Your task to perform on an android device: open app "Skype" Image 0: 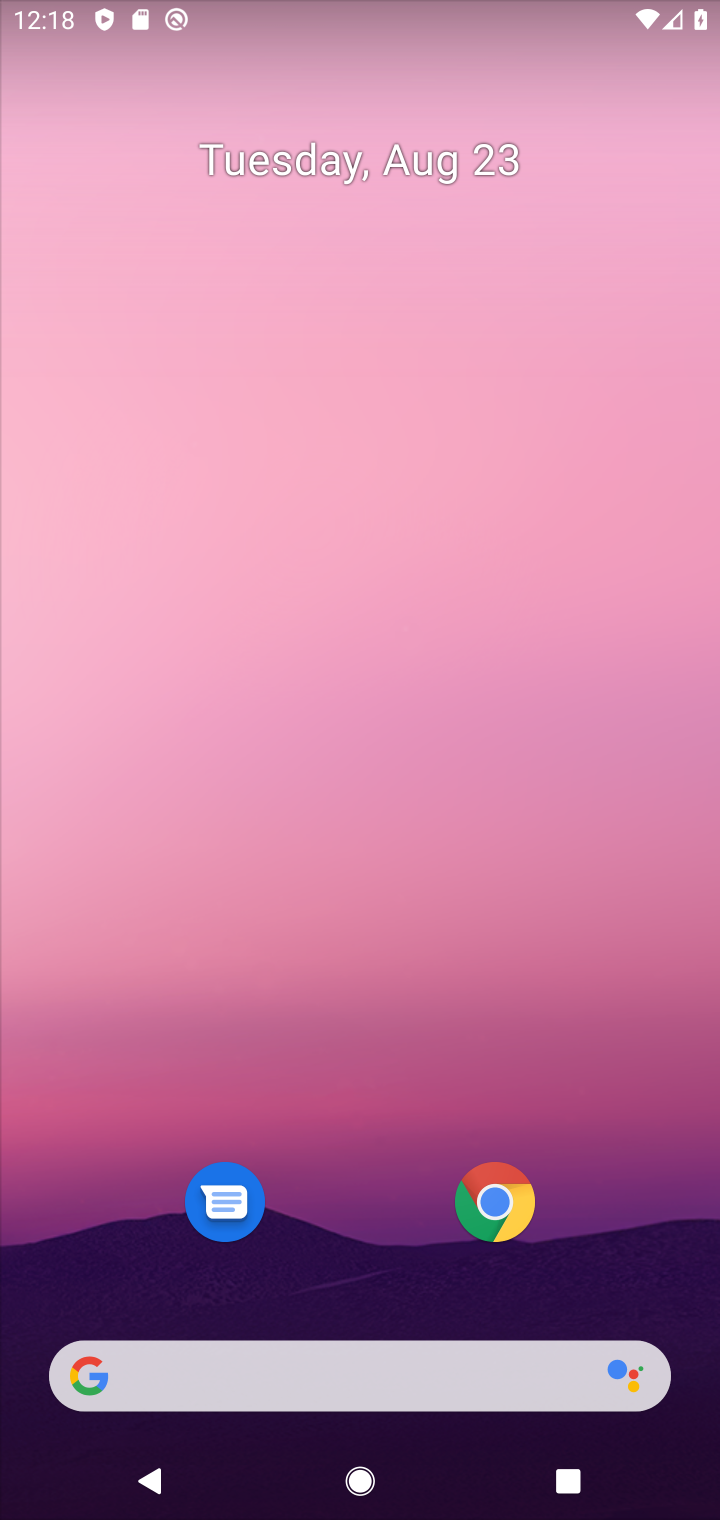
Step 0: drag from (305, 216) to (302, 107)
Your task to perform on an android device: open app "Skype" Image 1: 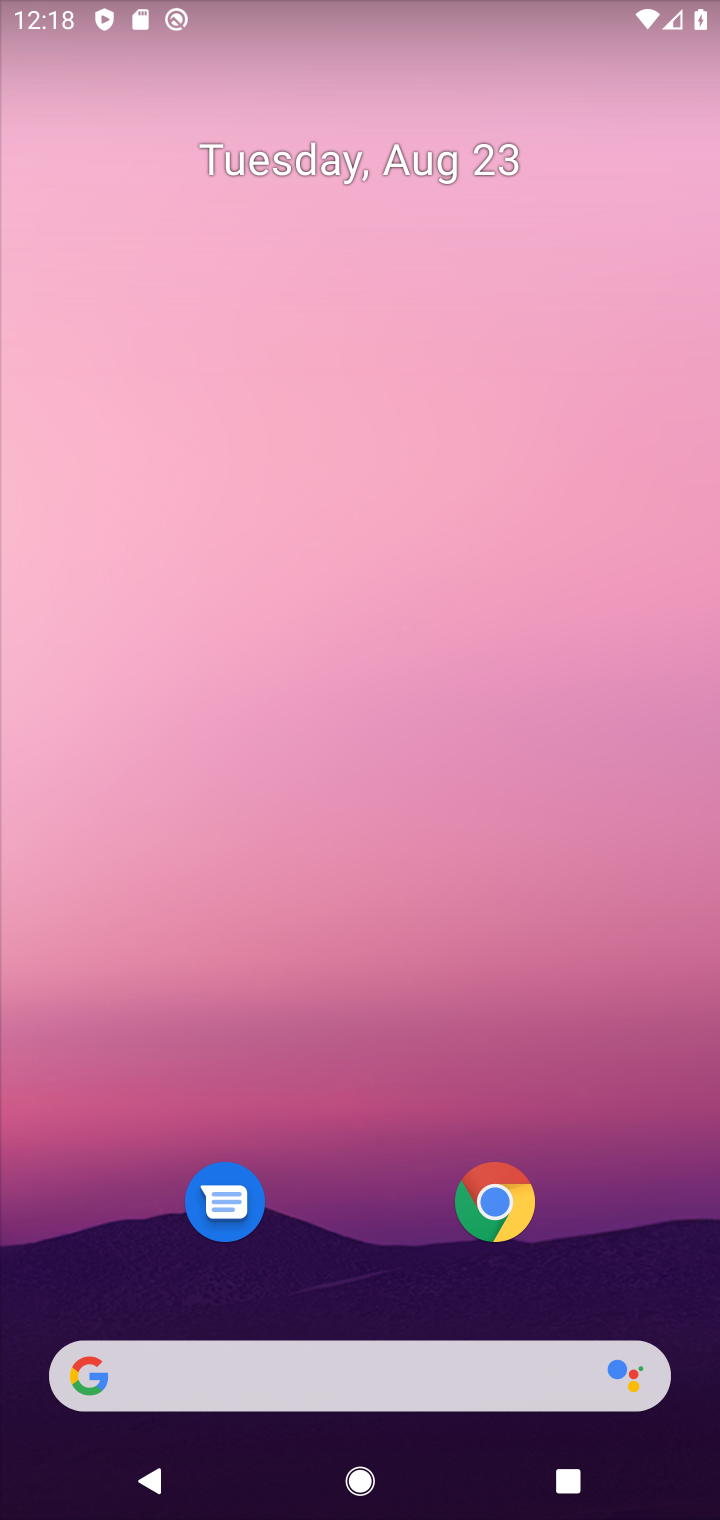
Step 1: drag from (262, 1157) to (40, 0)
Your task to perform on an android device: open app "Skype" Image 2: 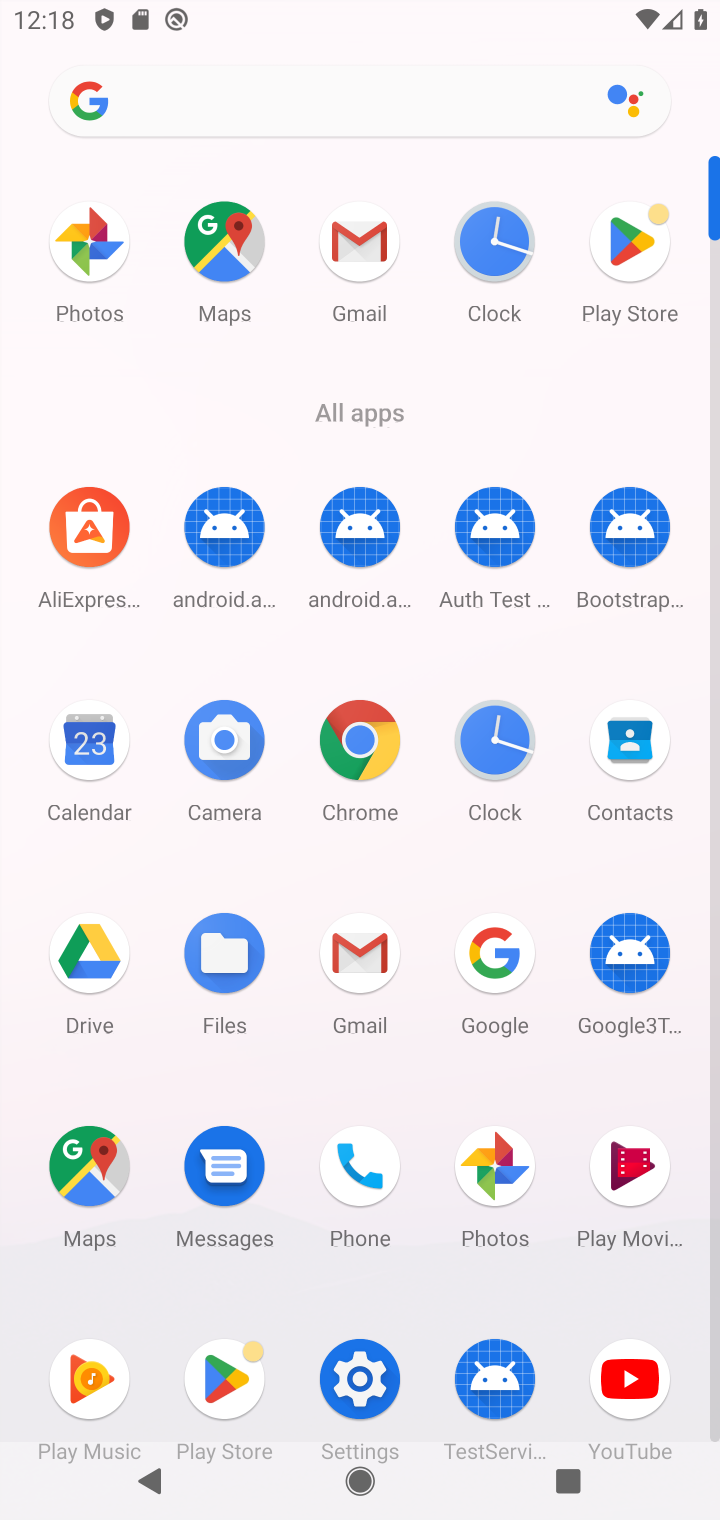
Step 2: click (627, 239)
Your task to perform on an android device: open app "Skype" Image 3: 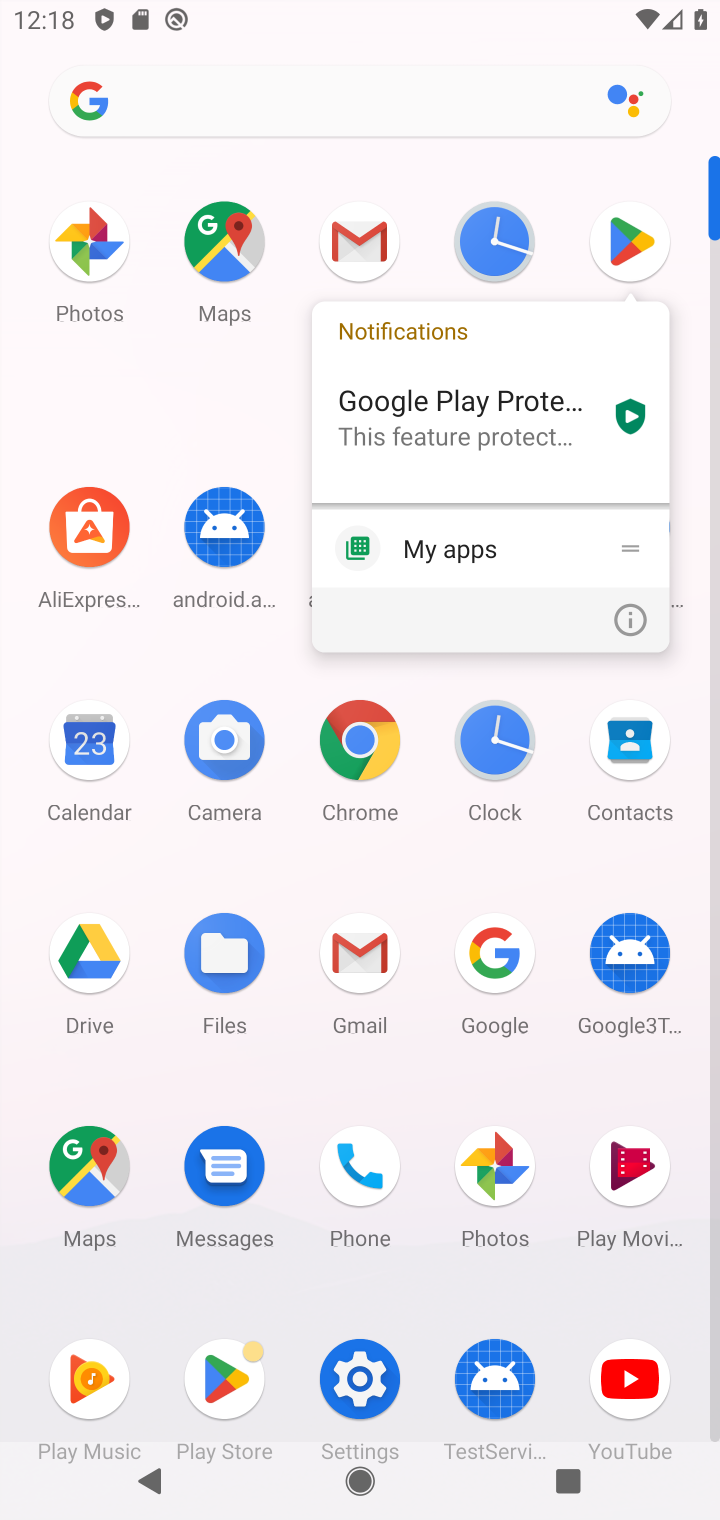
Step 3: click (614, 245)
Your task to perform on an android device: open app "Skype" Image 4: 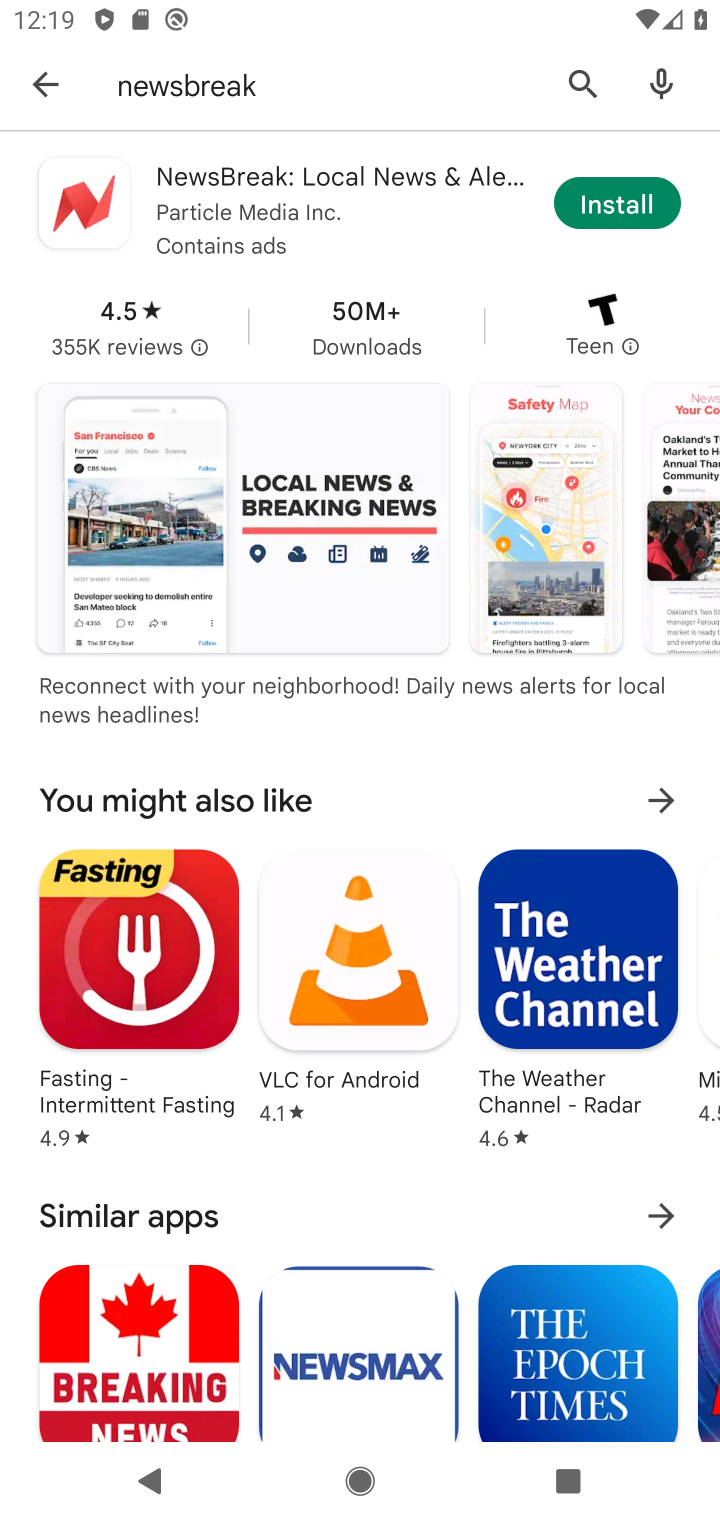
Step 4: click (566, 69)
Your task to perform on an android device: open app "Skype" Image 5: 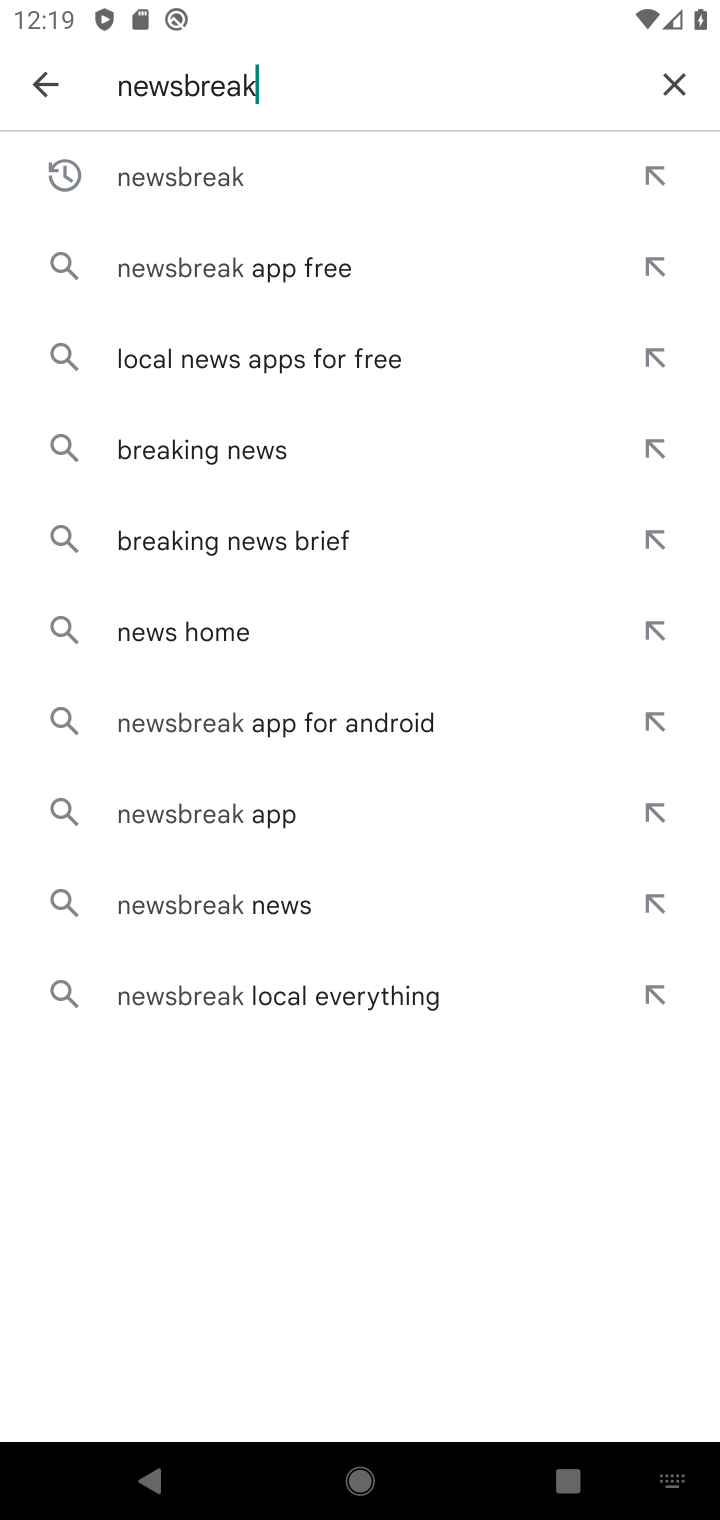
Step 5: click (676, 84)
Your task to perform on an android device: open app "Skype" Image 6: 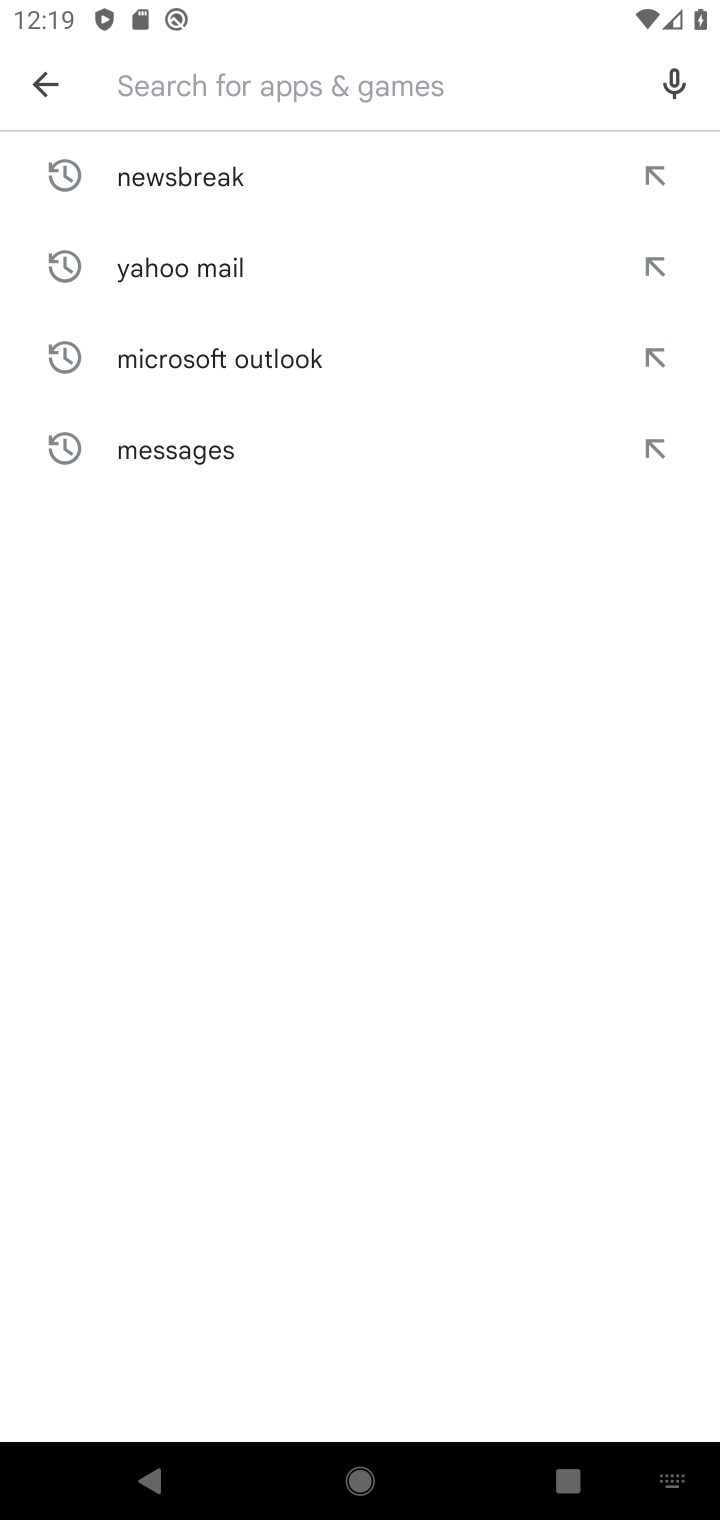
Step 6: type "skype"
Your task to perform on an android device: open app "Skype" Image 7: 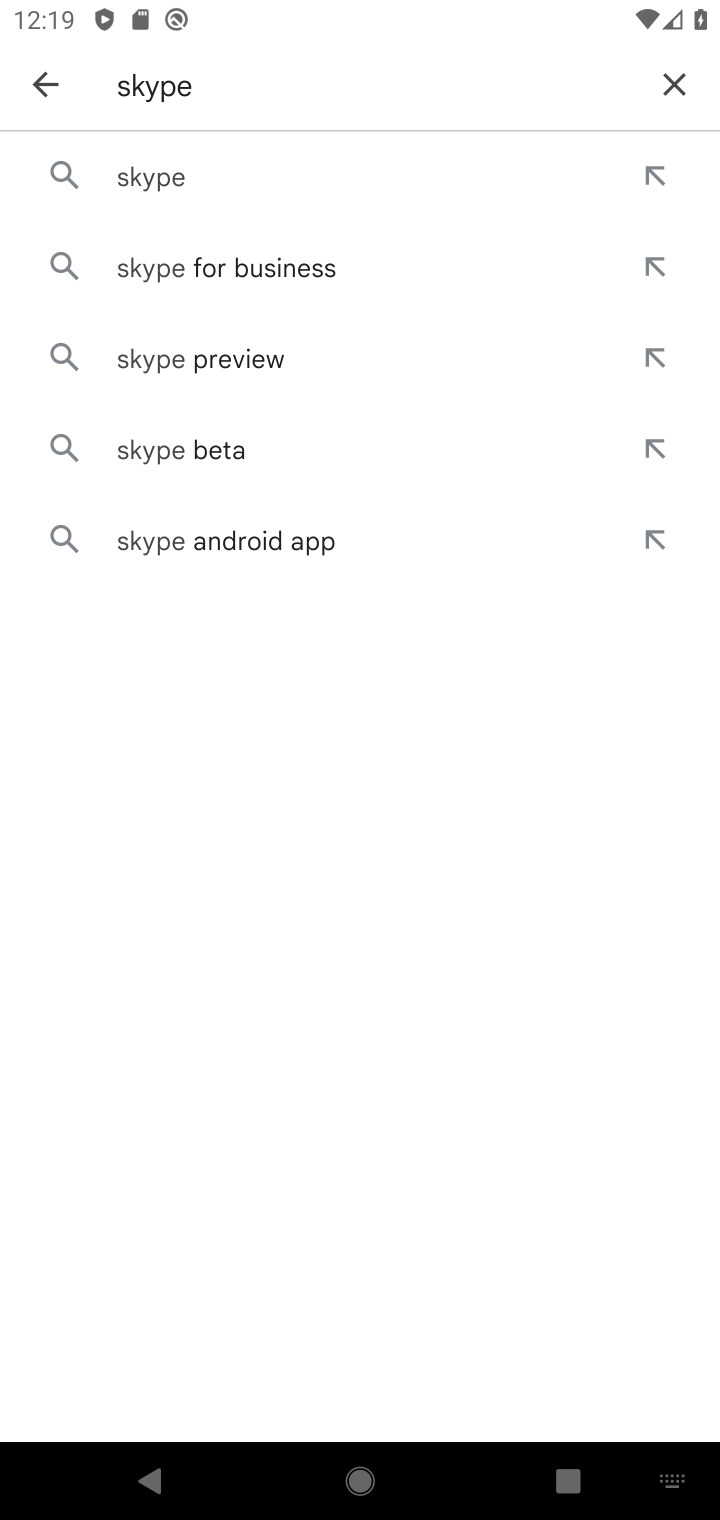
Step 7: click (155, 179)
Your task to perform on an android device: open app "Skype" Image 8: 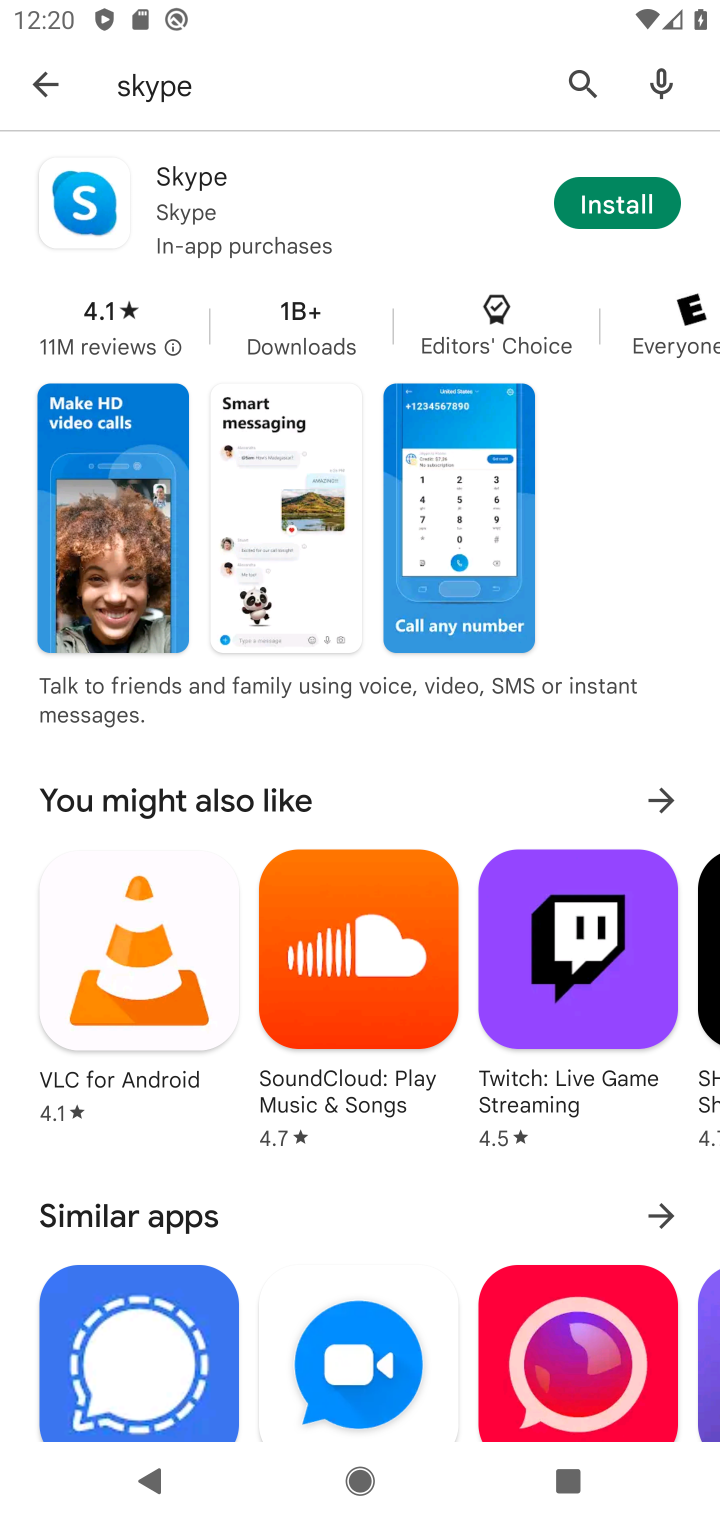
Step 8: task complete